Your task to perform on an android device: Open location settings Image 0: 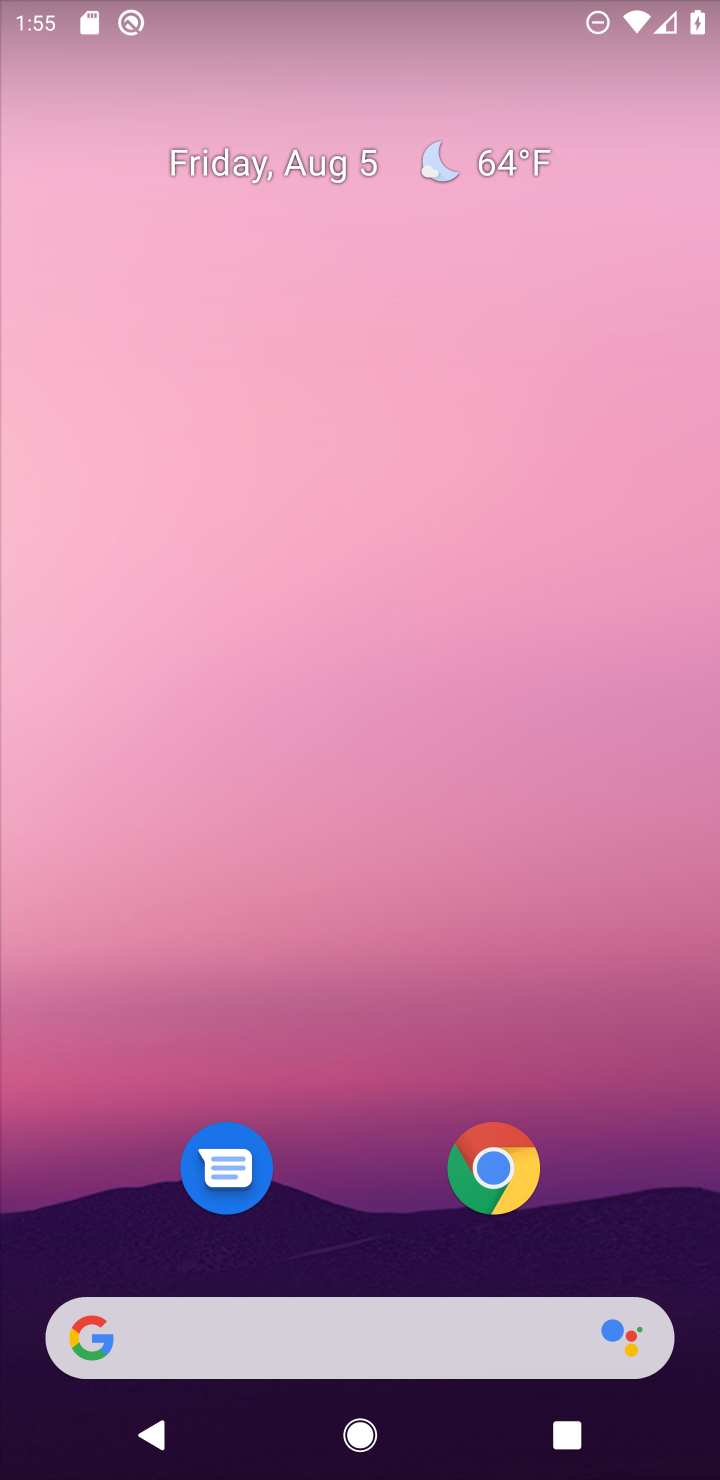
Step 0: drag from (683, 1174) to (278, 32)
Your task to perform on an android device: Open location settings Image 1: 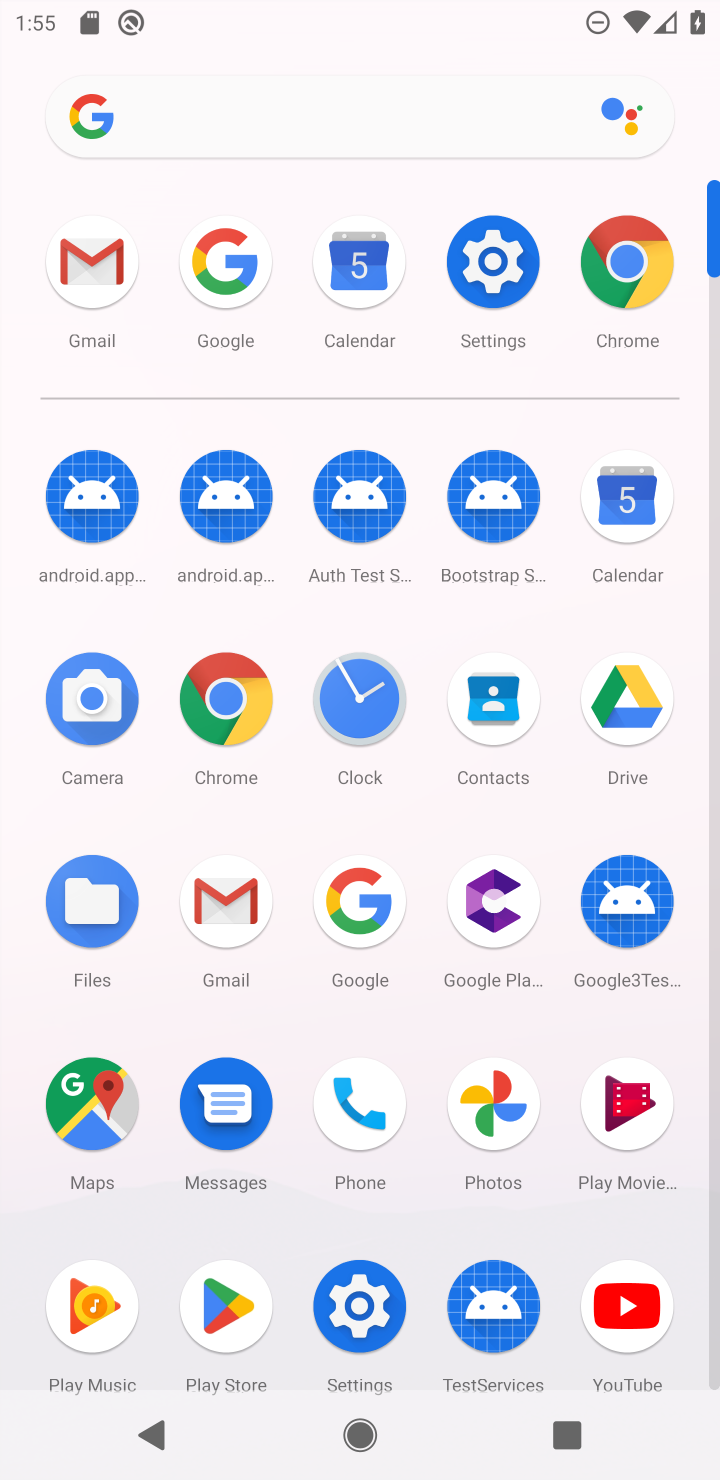
Step 1: click (499, 273)
Your task to perform on an android device: Open location settings Image 2: 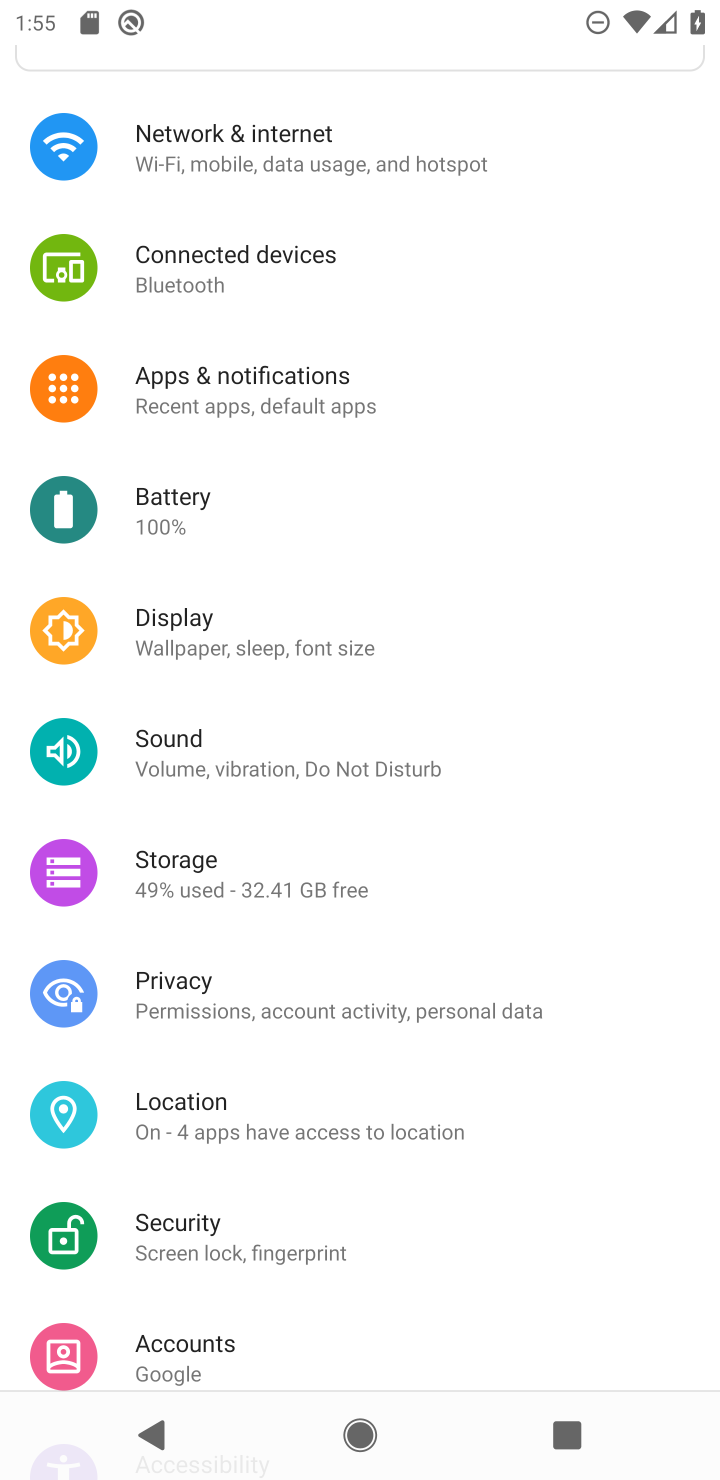
Step 2: click (175, 1121)
Your task to perform on an android device: Open location settings Image 3: 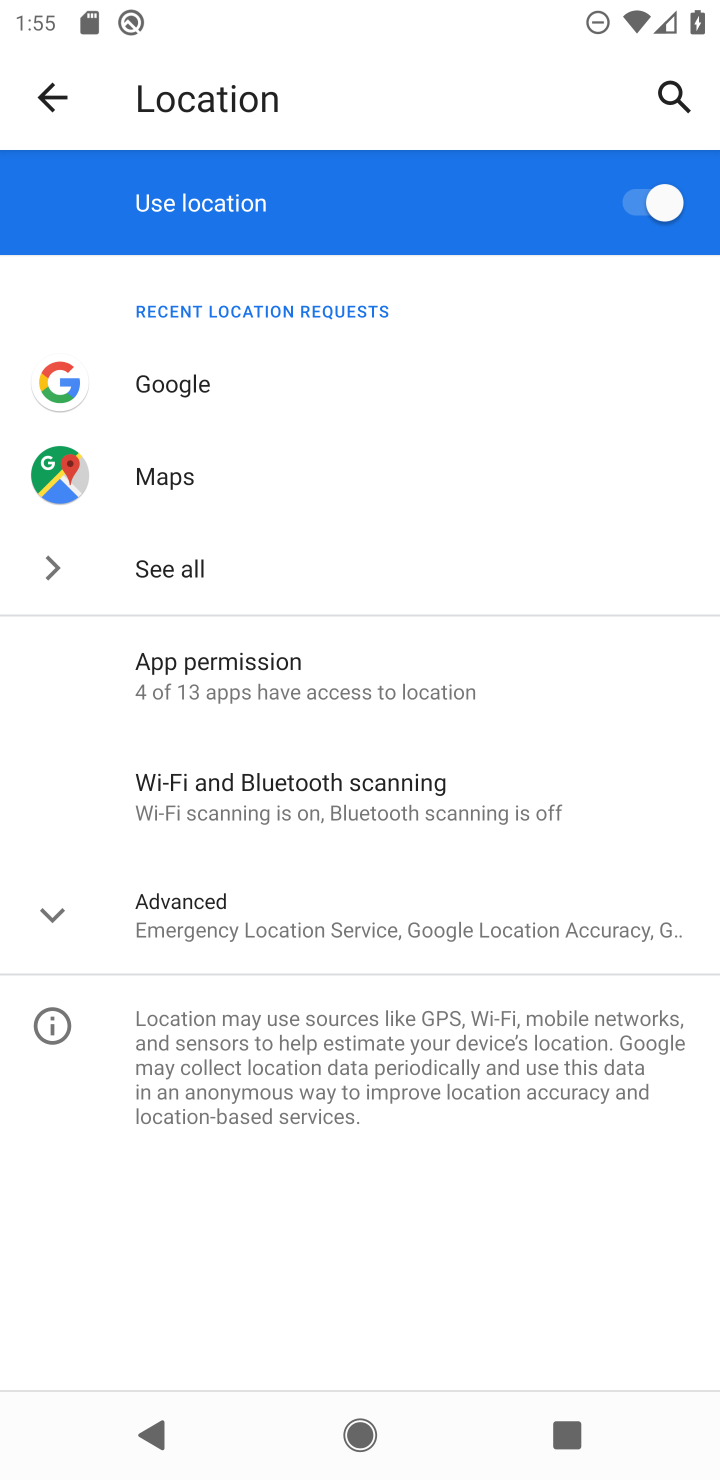
Step 3: task complete